Your task to perform on an android device: Go to internet settings Image 0: 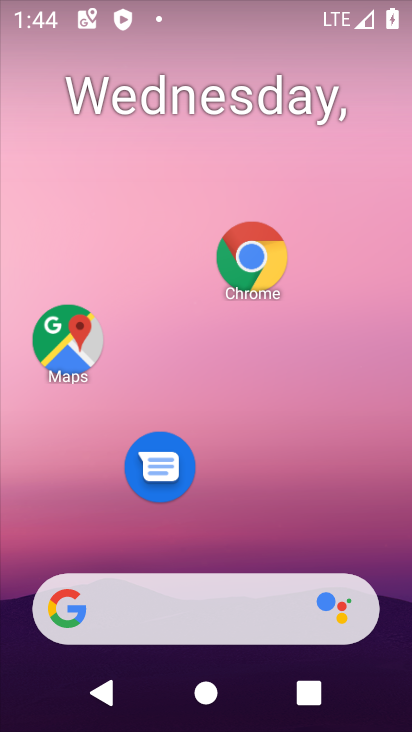
Step 0: drag from (296, 548) to (340, 200)
Your task to perform on an android device: Go to internet settings Image 1: 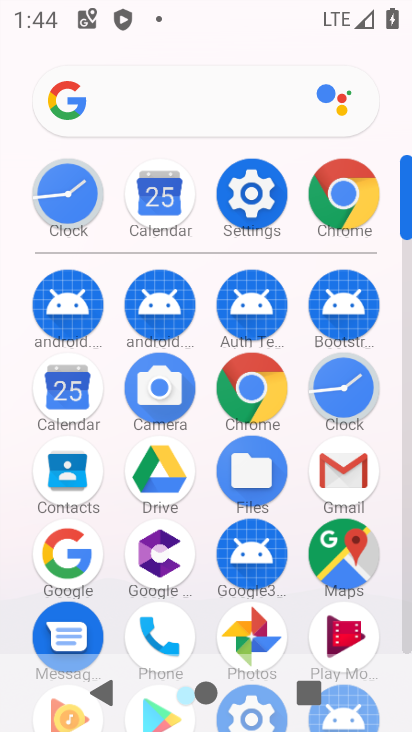
Step 1: click (249, 196)
Your task to perform on an android device: Go to internet settings Image 2: 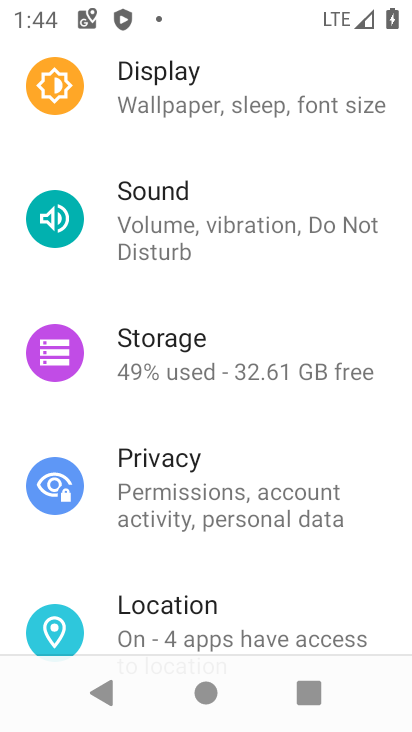
Step 2: drag from (257, 150) to (177, 552)
Your task to perform on an android device: Go to internet settings Image 3: 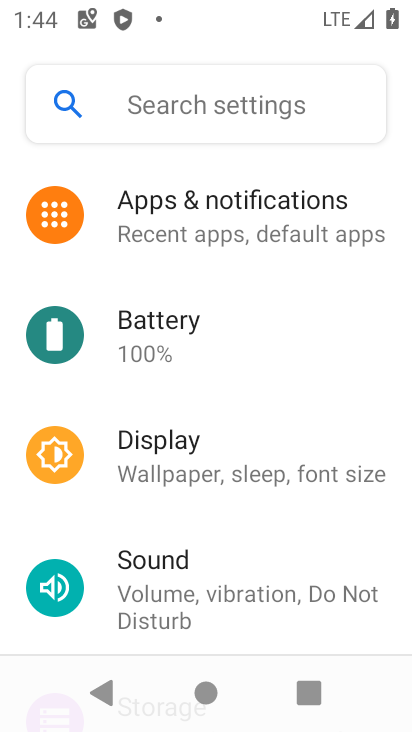
Step 3: drag from (222, 276) to (162, 508)
Your task to perform on an android device: Go to internet settings Image 4: 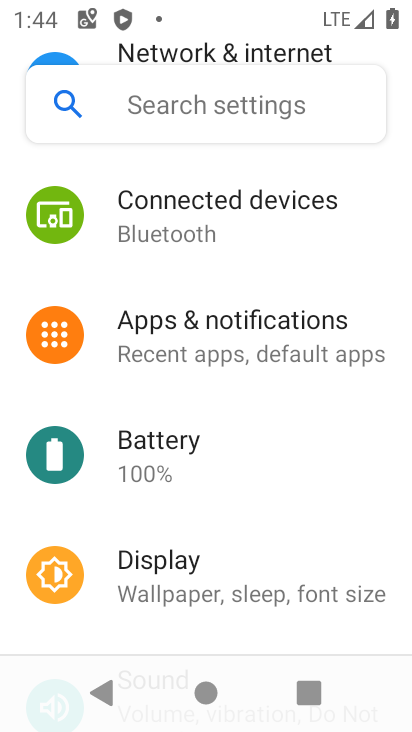
Step 4: drag from (207, 182) to (129, 628)
Your task to perform on an android device: Go to internet settings Image 5: 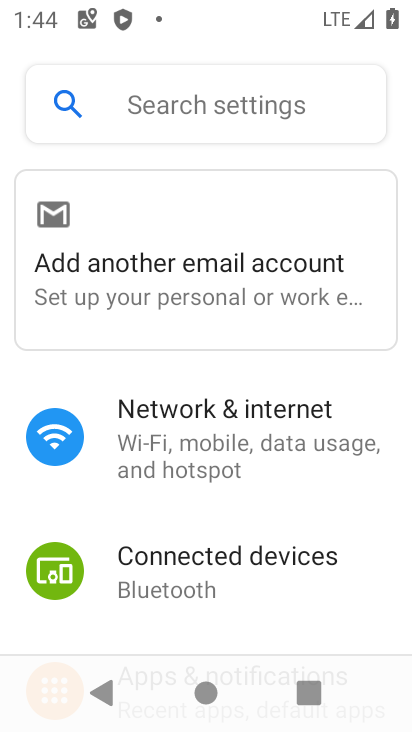
Step 5: click (155, 412)
Your task to perform on an android device: Go to internet settings Image 6: 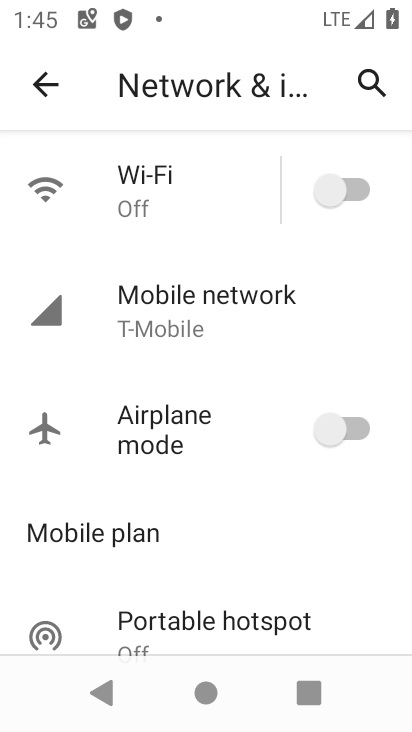
Step 6: task complete